Your task to perform on an android device: turn on showing notifications on the lock screen Image 0: 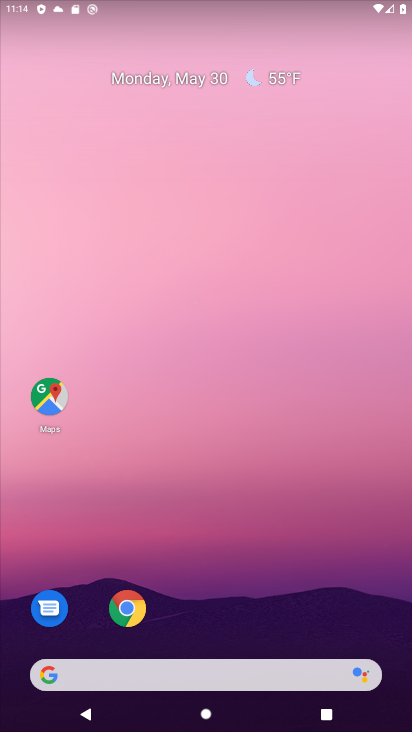
Step 0: drag from (311, 645) to (316, 15)
Your task to perform on an android device: turn on showing notifications on the lock screen Image 1: 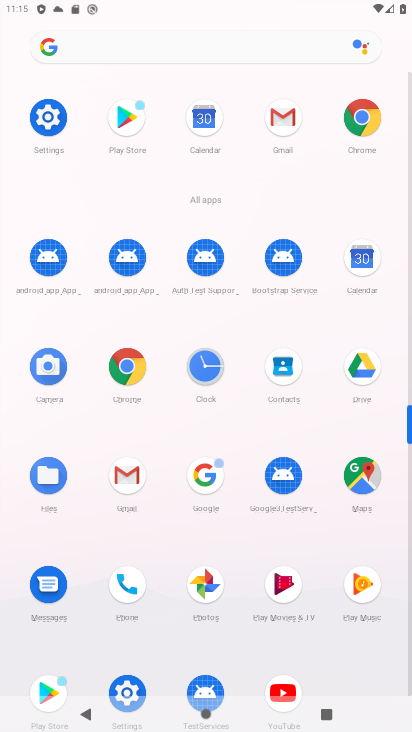
Step 1: click (46, 121)
Your task to perform on an android device: turn on showing notifications on the lock screen Image 2: 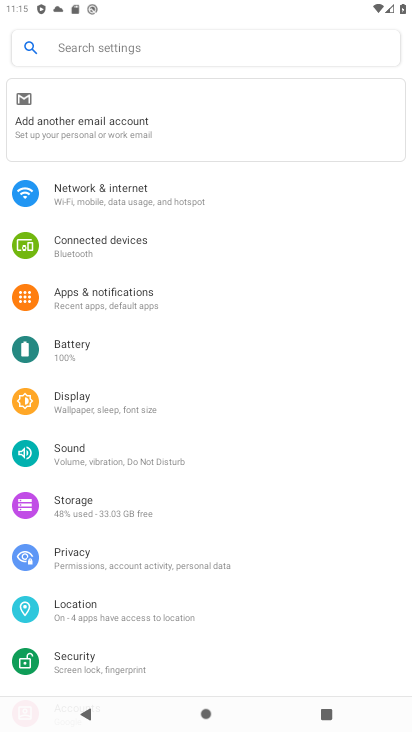
Step 2: click (95, 295)
Your task to perform on an android device: turn on showing notifications on the lock screen Image 3: 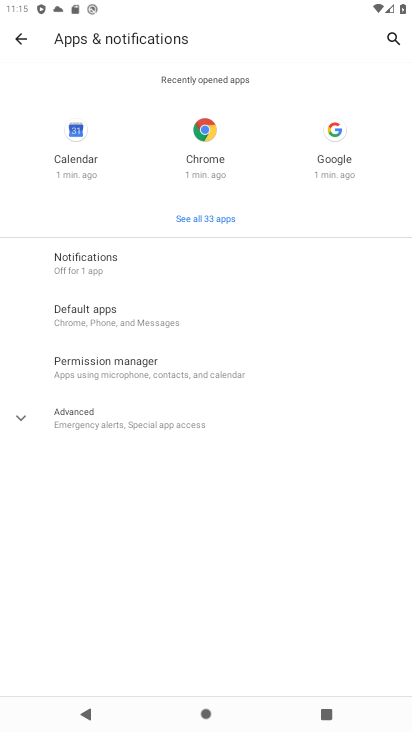
Step 3: click (71, 260)
Your task to perform on an android device: turn on showing notifications on the lock screen Image 4: 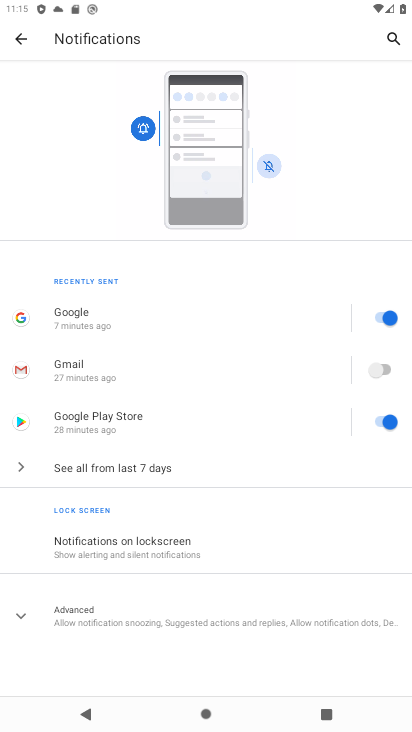
Step 4: click (95, 553)
Your task to perform on an android device: turn on showing notifications on the lock screen Image 5: 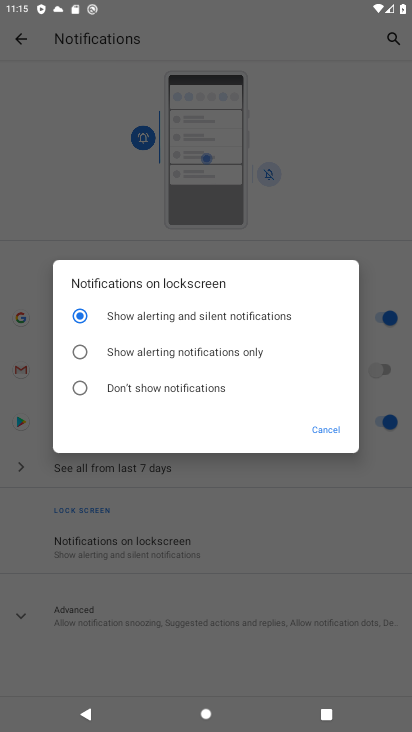
Step 5: task complete